Your task to perform on an android device: Open maps Image 0: 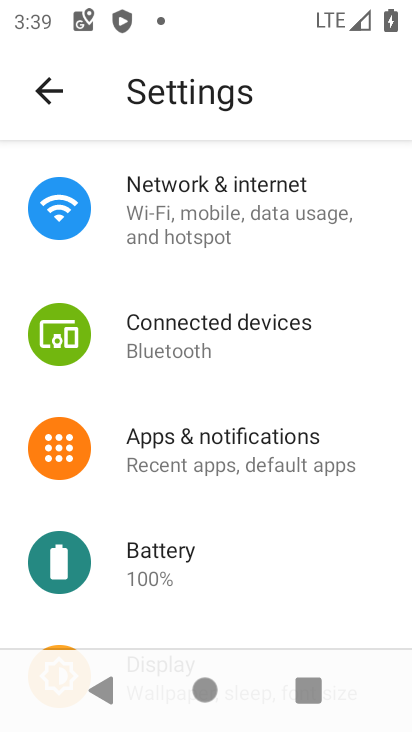
Step 0: press home button
Your task to perform on an android device: Open maps Image 1: 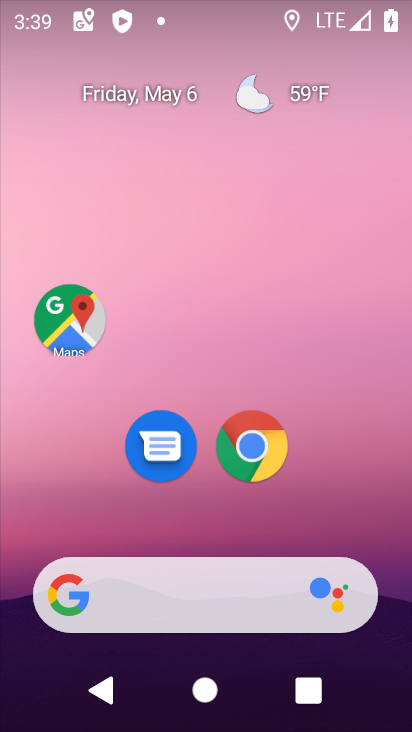
Step 1: click (40, 334)
Your task to perform on an android device: Open maps Image 2: 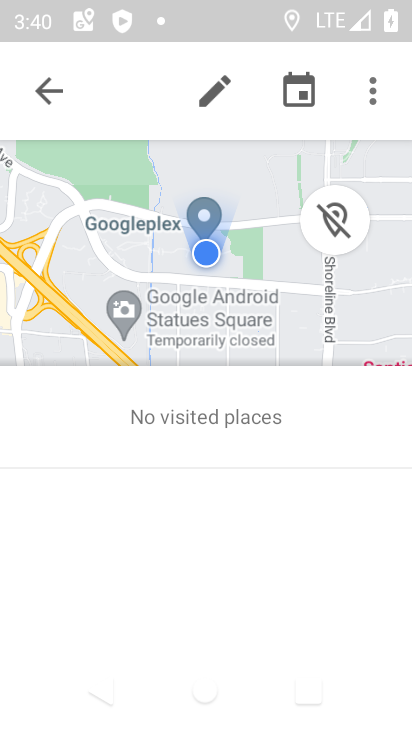
Step 2: task complete